Your task to perform on an android device: Look up the best rated hair dryer on Walmart. Image 0: 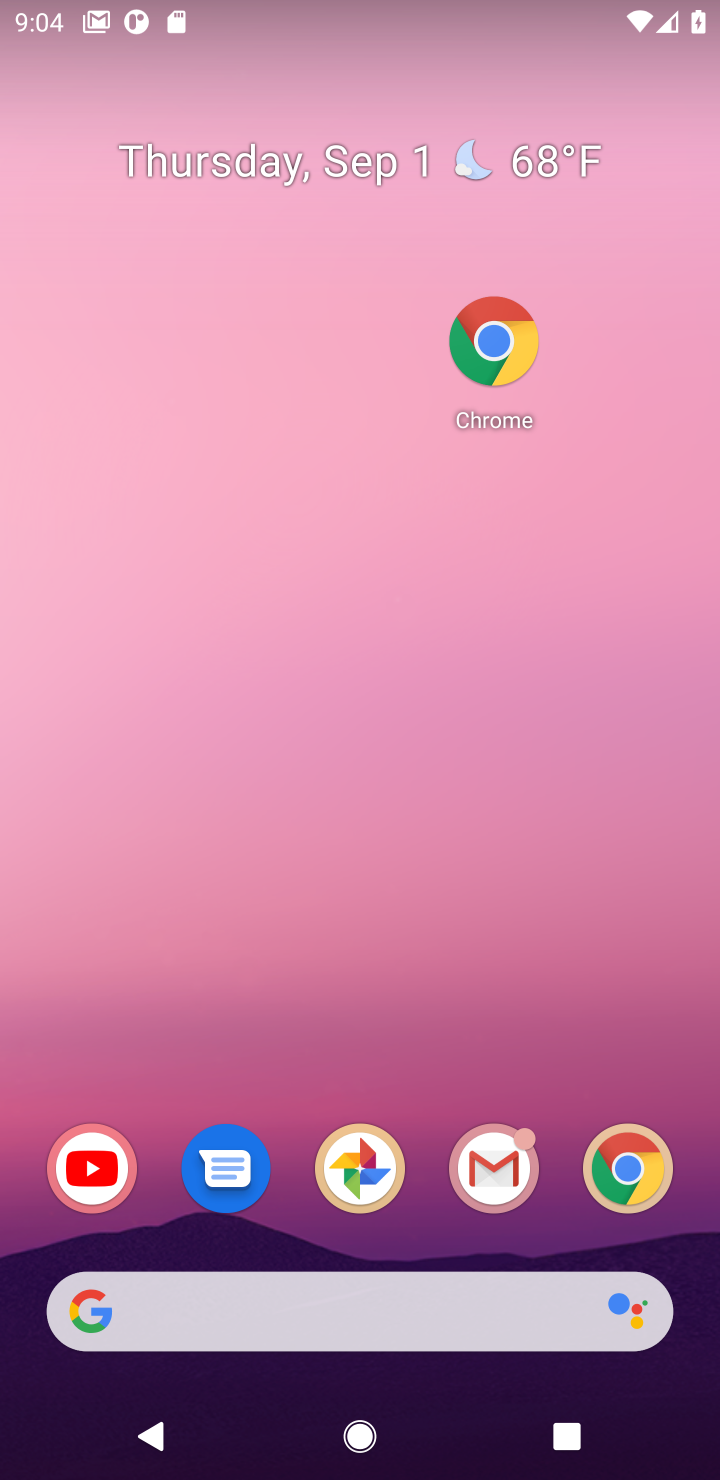
Step 0: drag from (269, 1267) to (346, 386)
Your task to perform on an android device: Look up the best rated hair dryer on Walmart. Image 1: 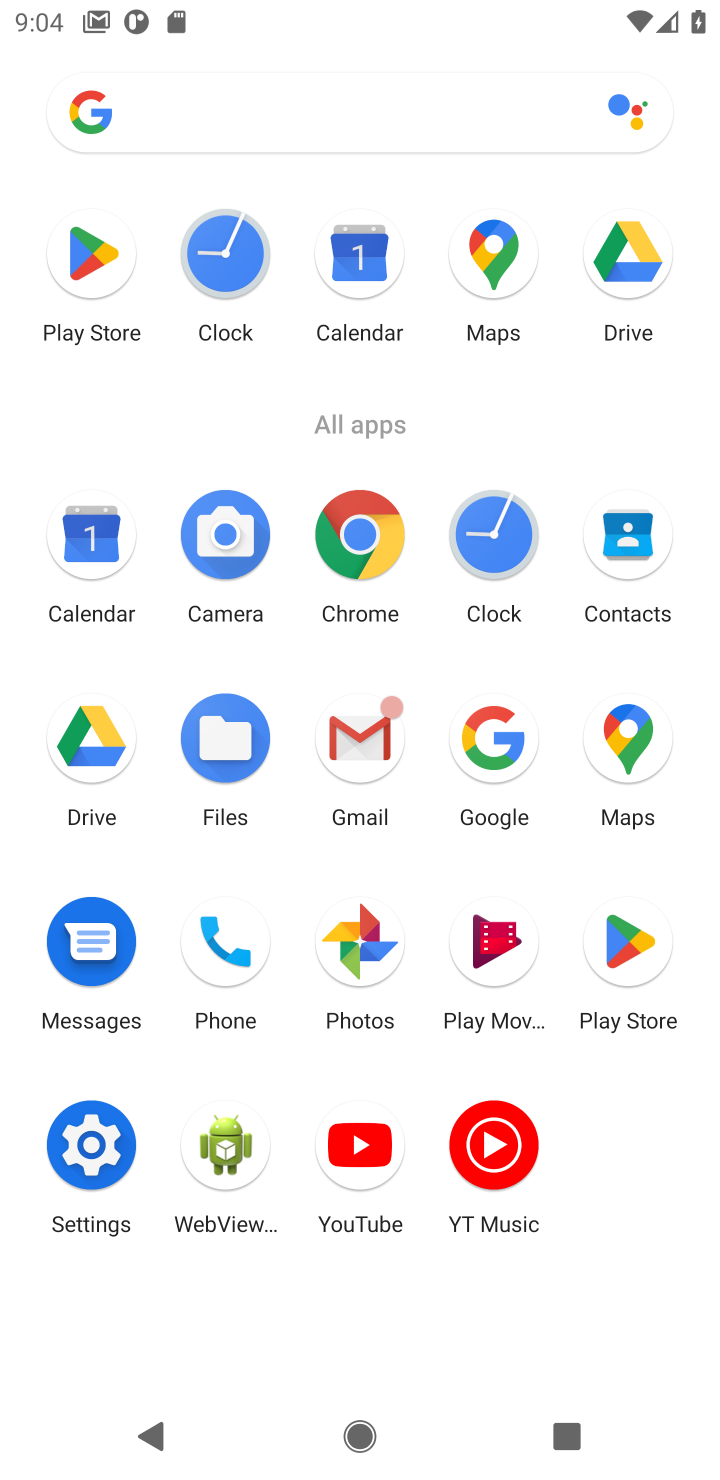
Step 1: click (484, 734)
Your task to perform on an android device: Look up the best rated hair dryer on Walmart. Image 2: 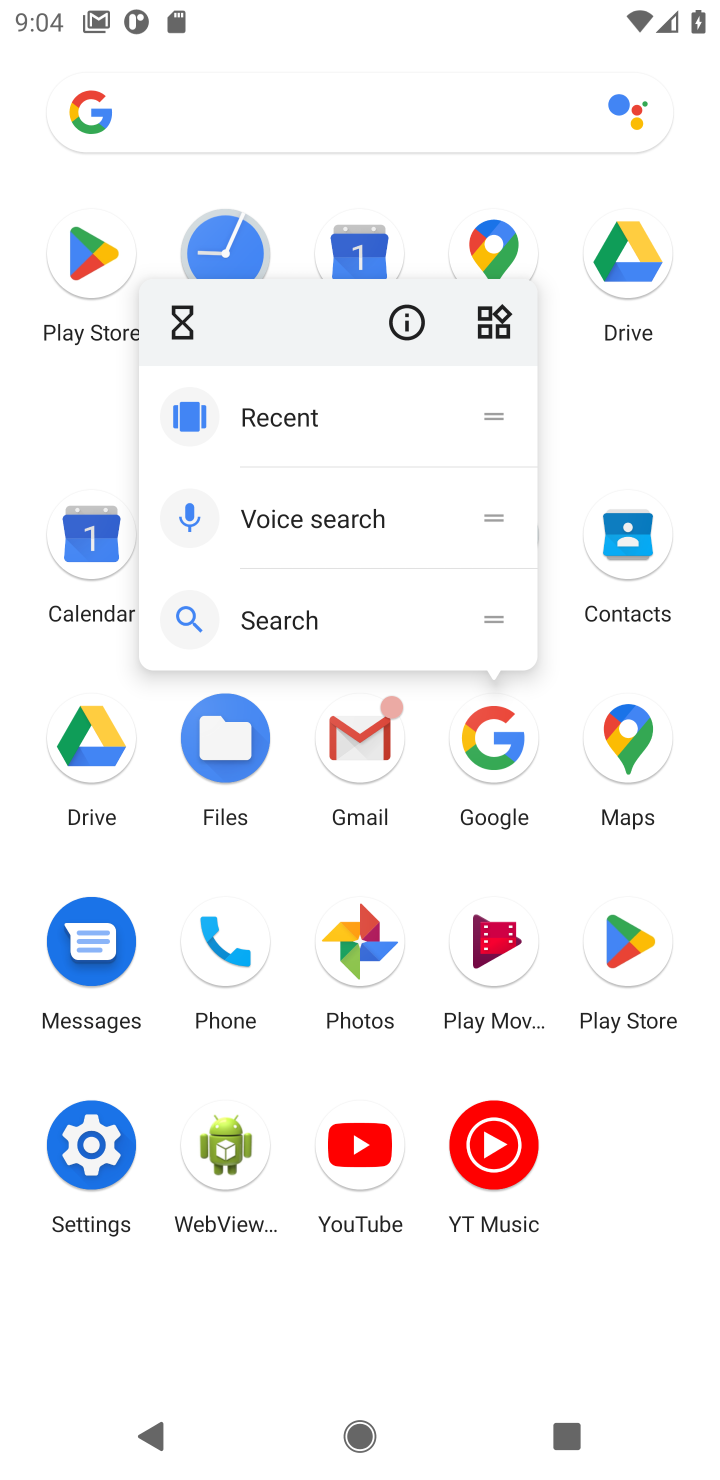
Step 2: click (484, 734)
Your task to perform on an android device: Look up the best rated hair dryer on Walmart. Image 3: 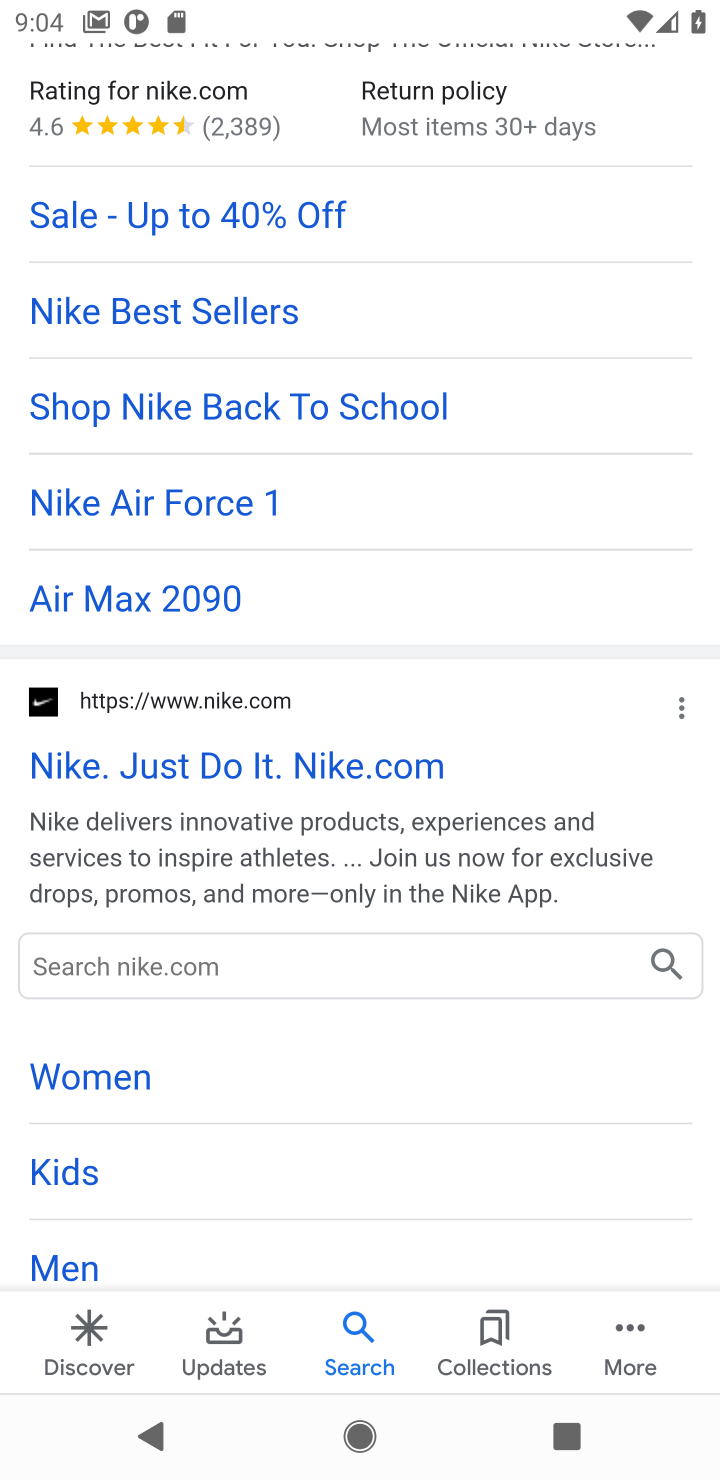
Step 3: drag from (339, 284) to (313, 1141)
Your task to perform on an android device: Look up the best rated hair dryer on Walmart. Image 4: 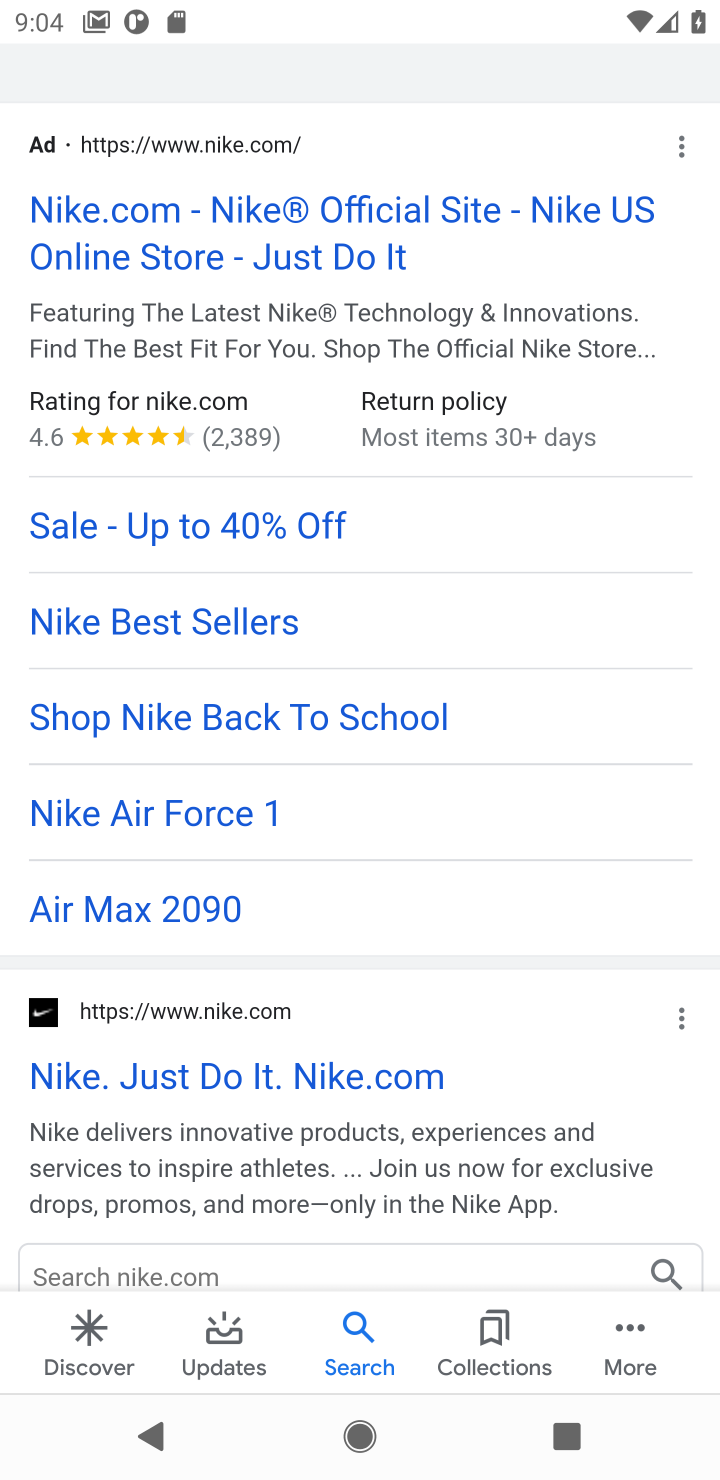
Step 4: drag from (334, 152) to (301, 1168)
Your task to perform on an android device: Look up the best rated hair dryer on Walmart. Image 5: 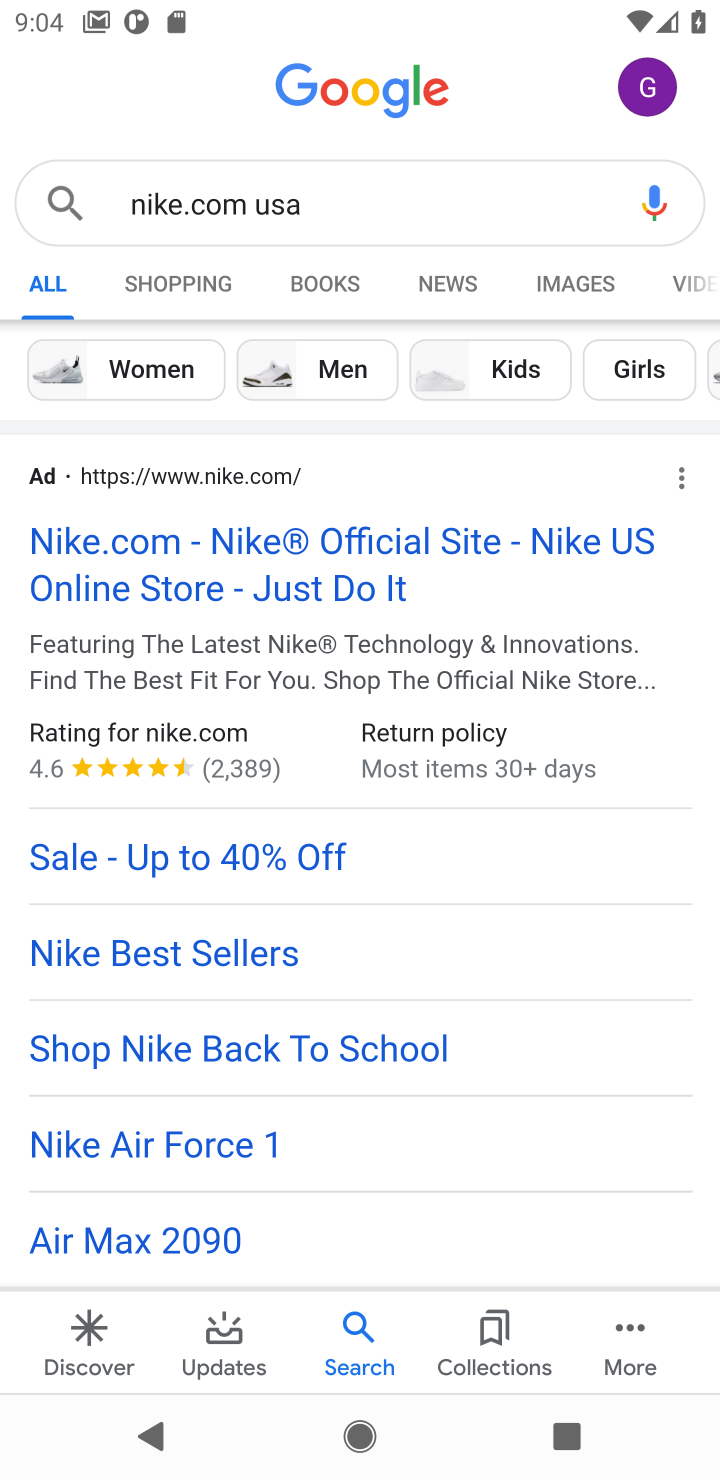
Step 5: drag from (374, 291) to (391, 192)
Your task to perform on an android device: Look up the best rated hair dryer on Walmart. Image 6: 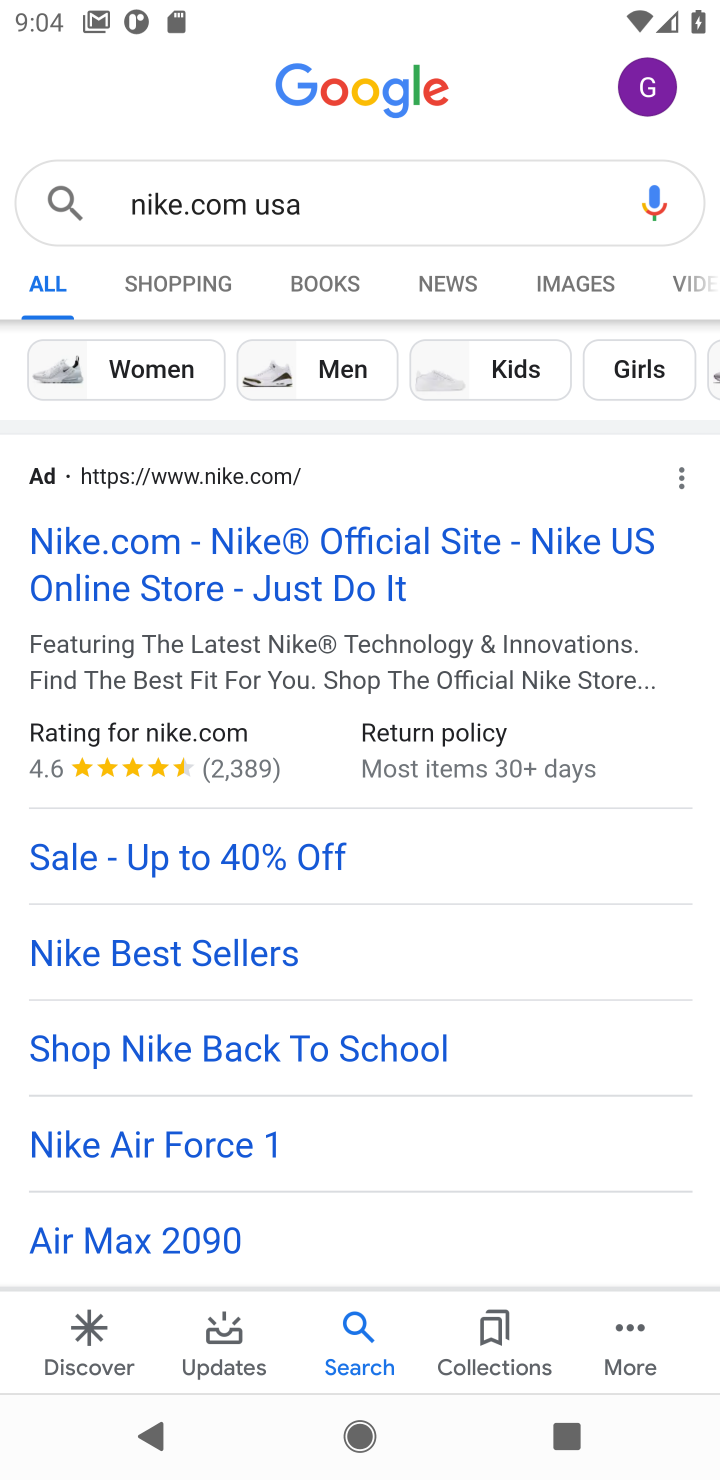
Step 6: click (472, 203)
Your task to perform on an android device: Look up the best rated hair dryer on Walmart. Image 7: 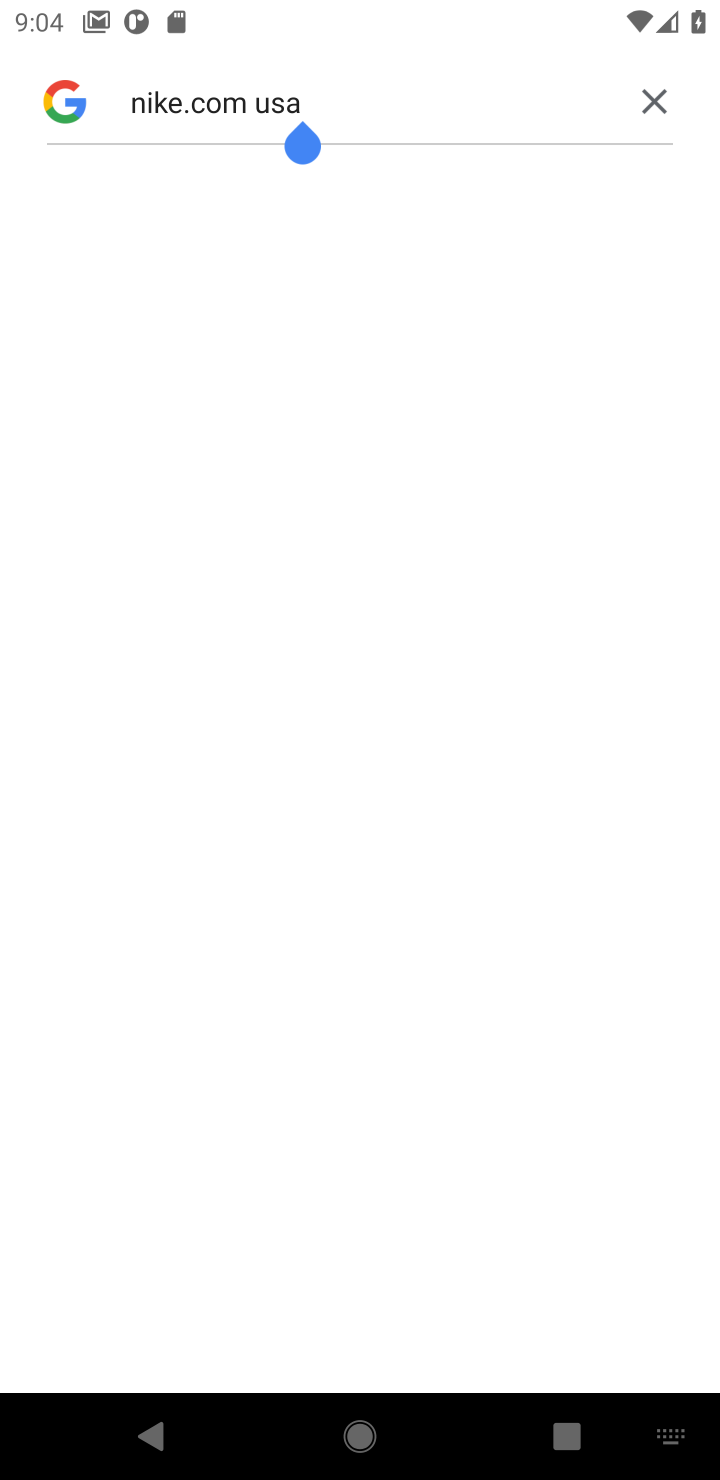
Step 7: click (652, 111)
Your task to perform on an android device: Look up the best rated hair dryer on Walmart. Image 8: 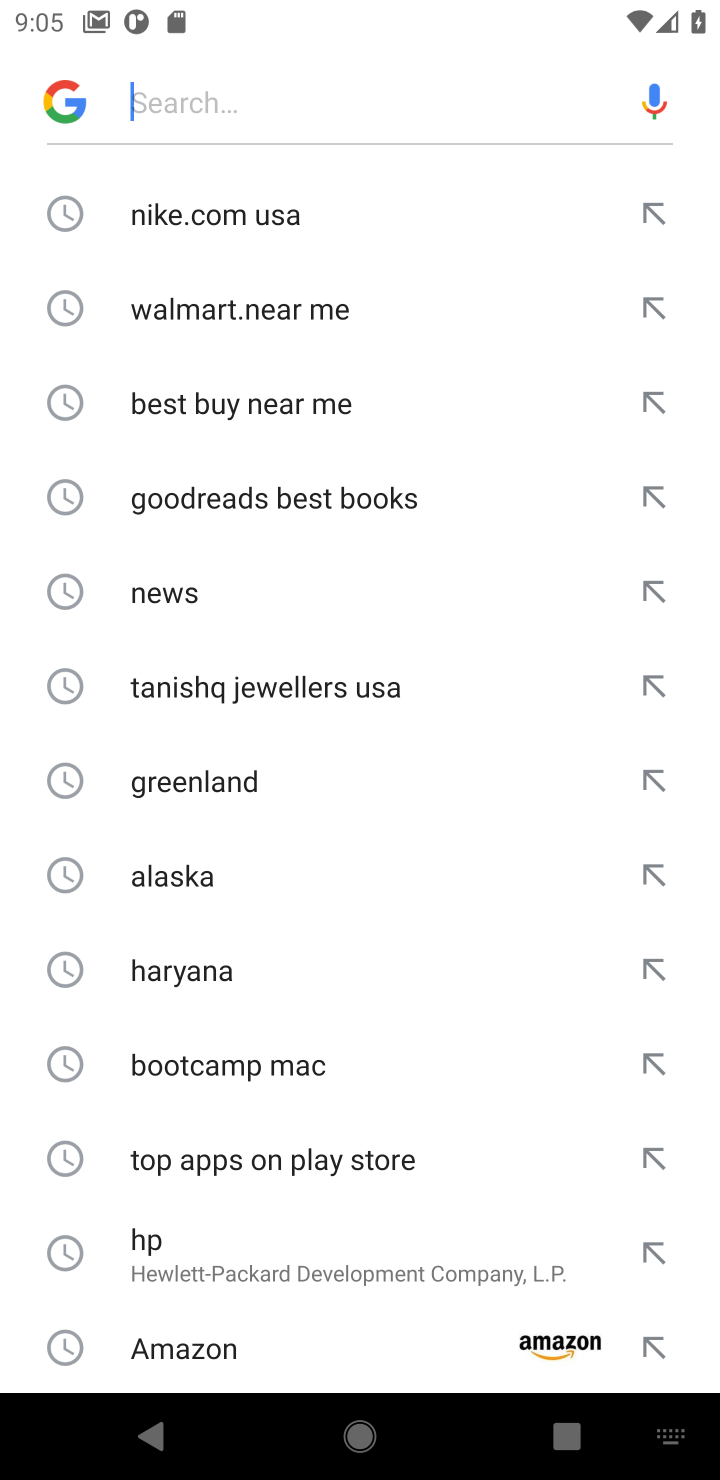
Step 8: click (386, 102)
Your task to perform on an android device: Look up the best rated hair dryer on Walmart. Image 9: 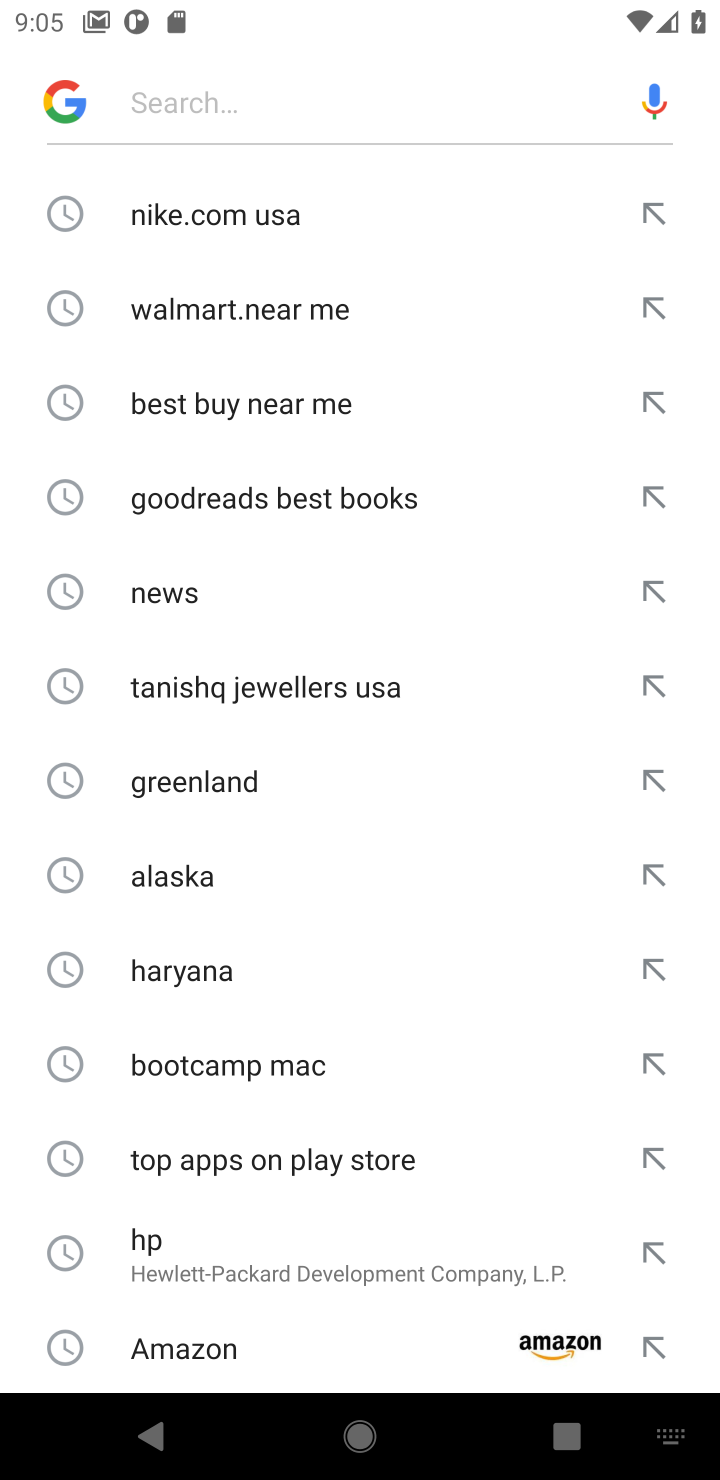
Step 9: type "Walmart "
Your task to perform on an android device: Look up the best rated hair dryer on Walmart. Image 10: 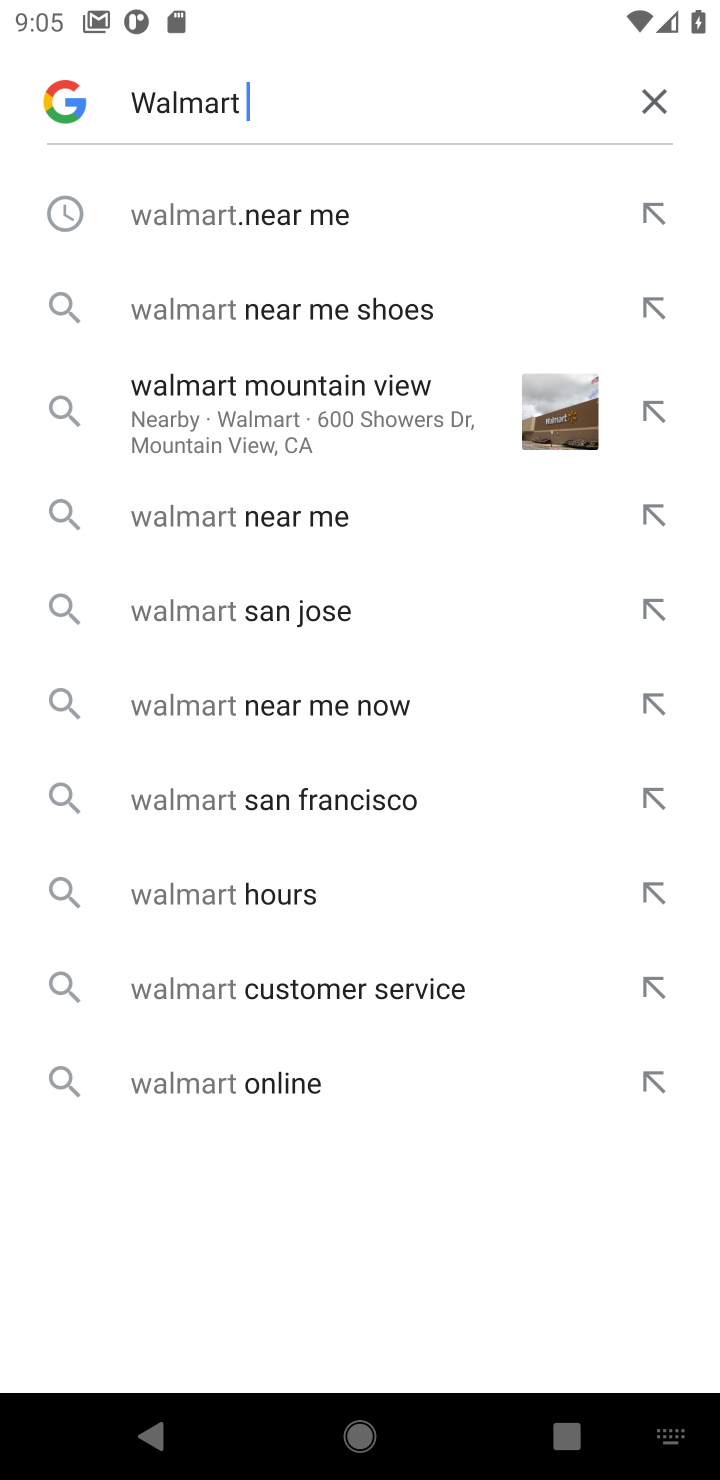
Step 10: click (284, 213)
Your task to perform on an android device: Look up the best rated hair dryer on Walmart. Image 11: 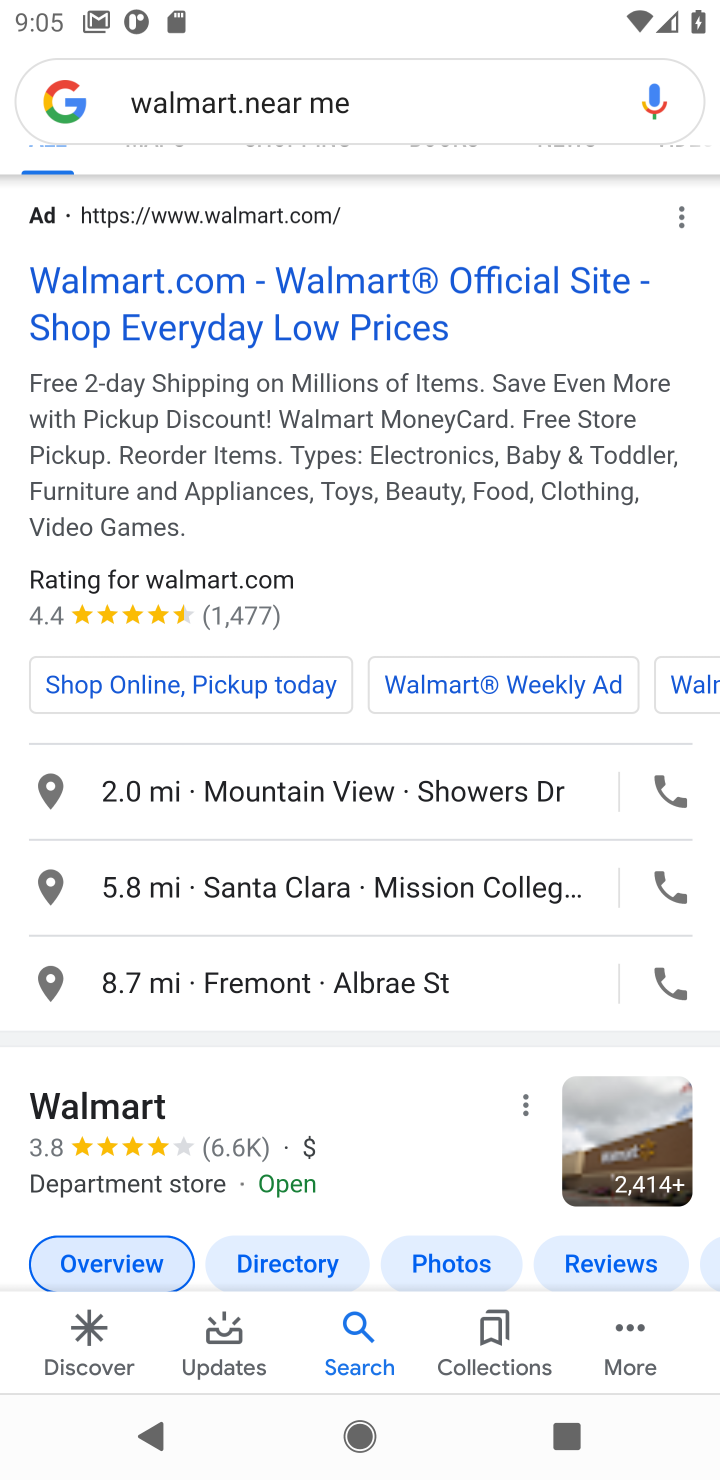
Step 11: click (271, 295)
Your task to perform on an android device: Look up the best rated hair dryer on Walmart. Image 12: 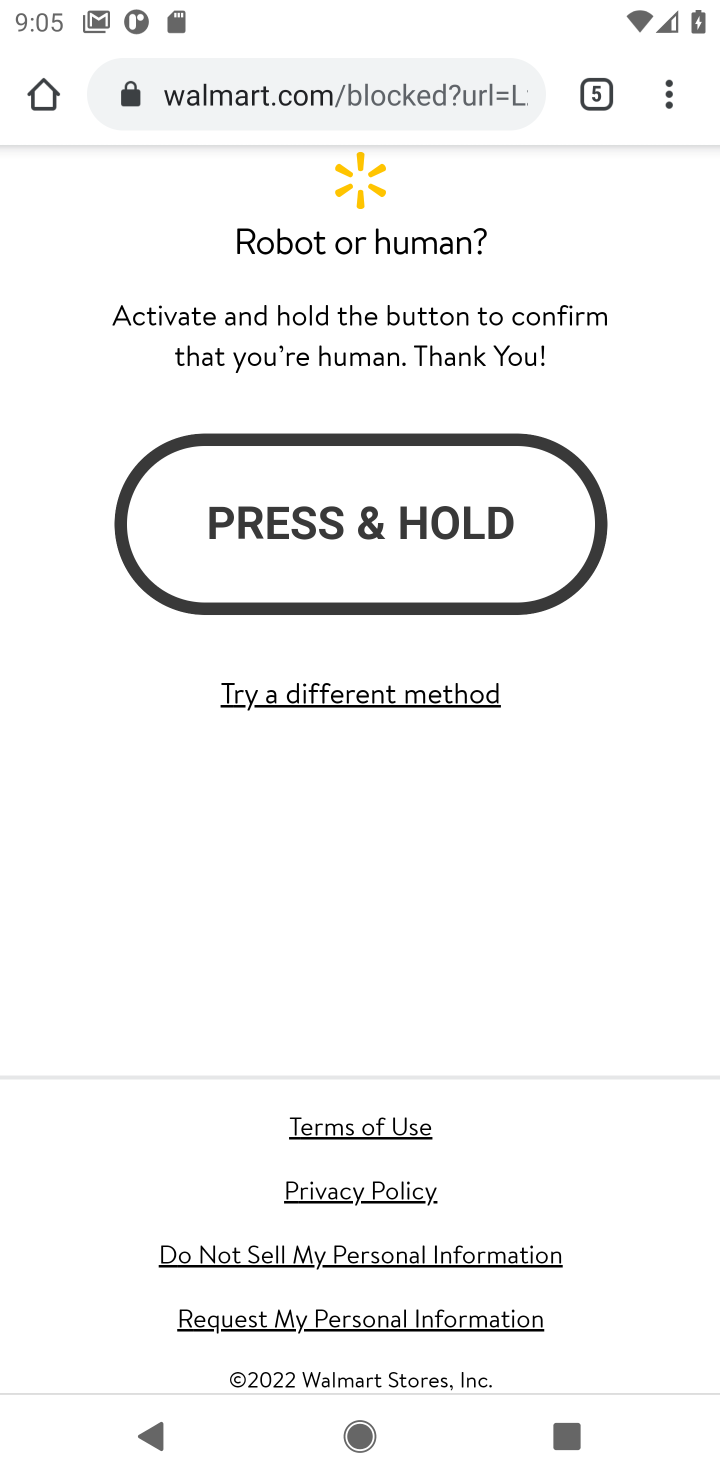
Step 12: click (602, 100)
Your task to perform on an android device: Look up the best rated hair dryer on Walmart. Image 13: 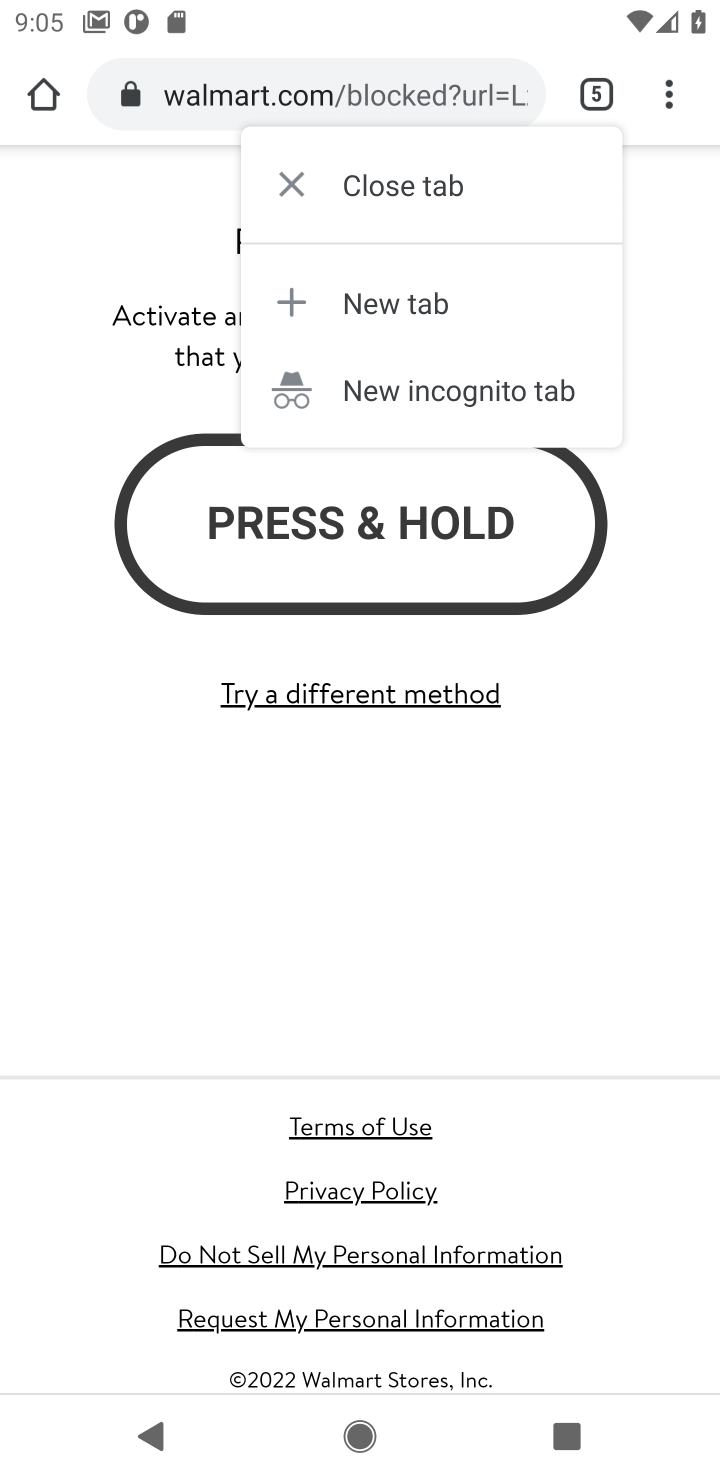
Step 13: click (359, 302)
Your task to perform on an android device: Look up the best rated hair dryer on Walmart. Image 14: 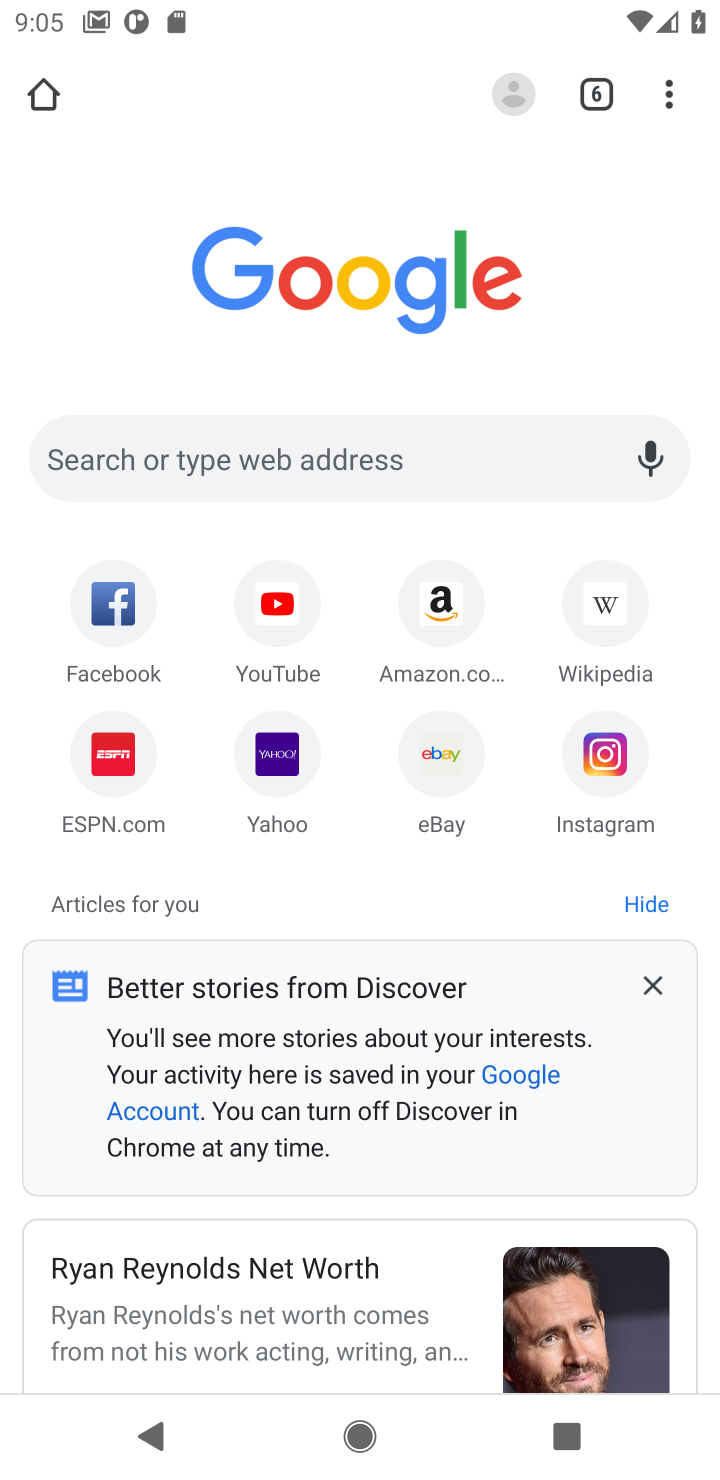
Step 14: click (363, 439)
Your task to perform on an android device: Look up the best rated hair dryer on Walmart. Image 15: 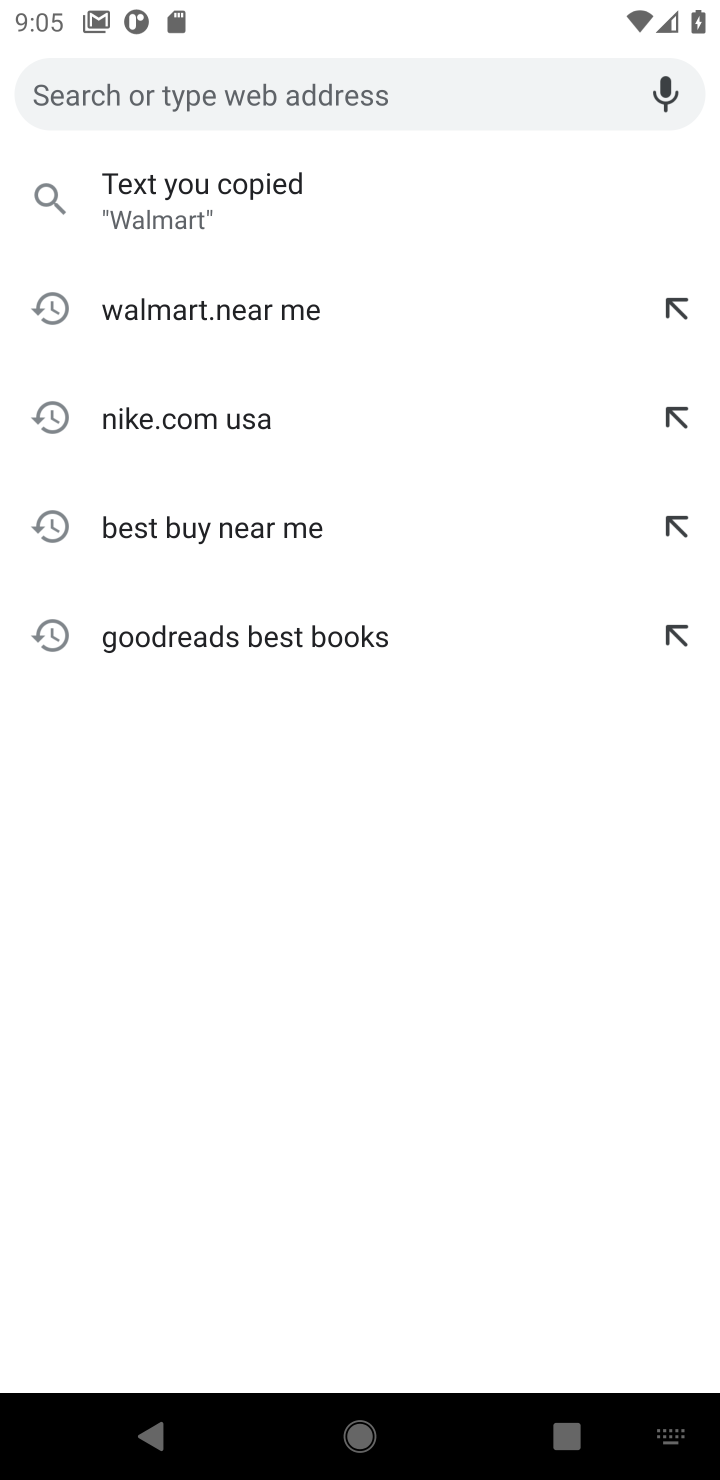
Step 15: type "walmart "
Your task to perform on an android device: Look up the best rated hair dryer on Walmart. Image 16: 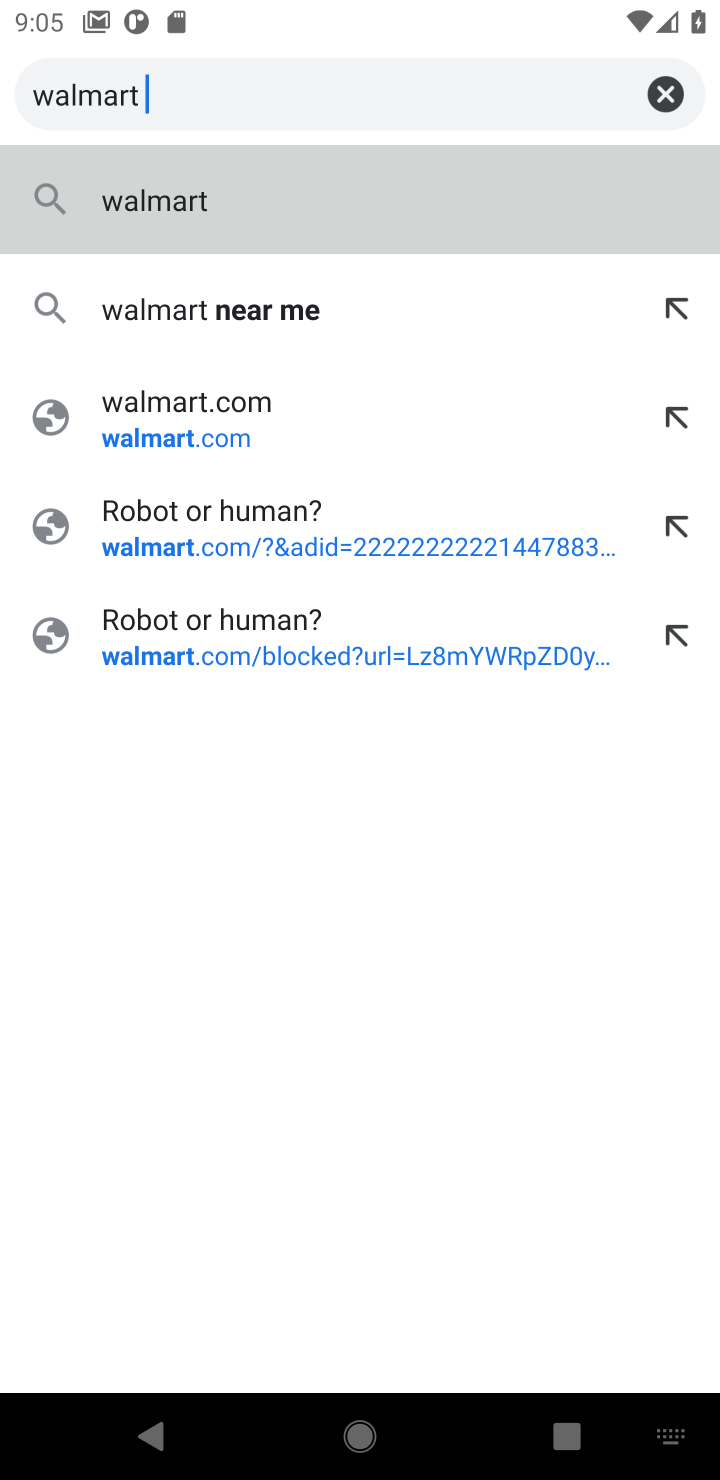
Step 16: click (316, 215)
Your task to perform on an android device: Look up the best rated hair dryer on Walmart. Image 17: 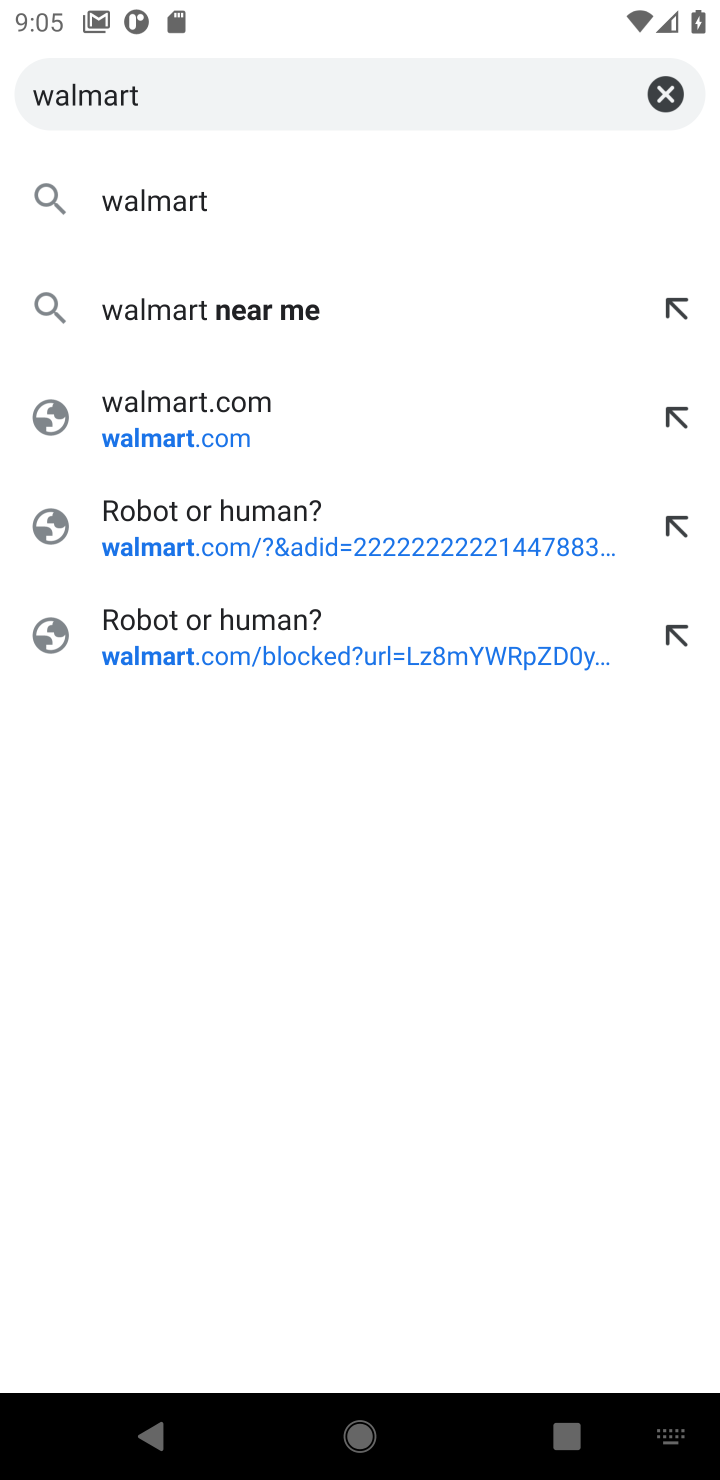
Step 17: click (162, 190)
Your task to perform on an android device: Look up the best rated hair dryer on Walmart. Image 18: 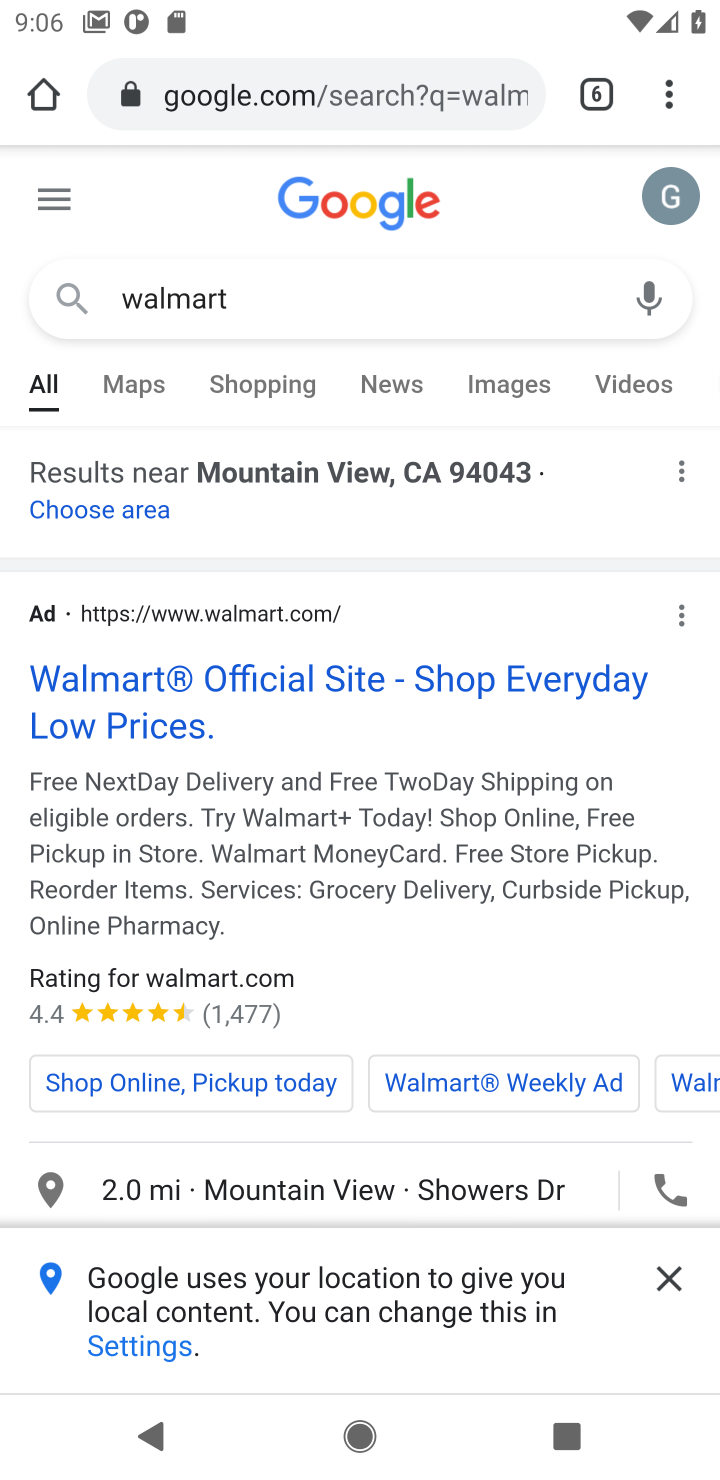
Step 18: click (272, 674)
Your task to perform on an android device: Look up the best rated hair dryer on Walmart. Image 19: 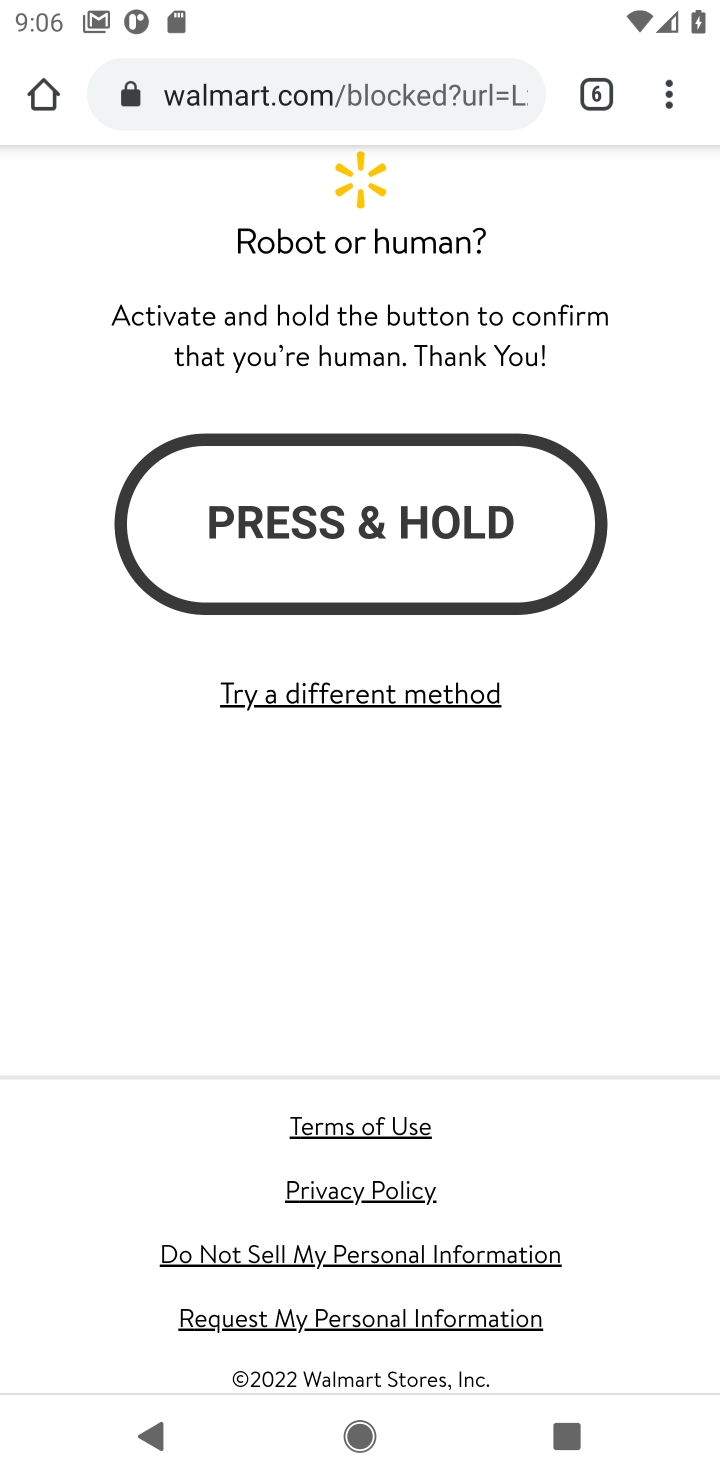
Step 19: task complete